Your task to perform on an android device: turn notification dots off Image 0: 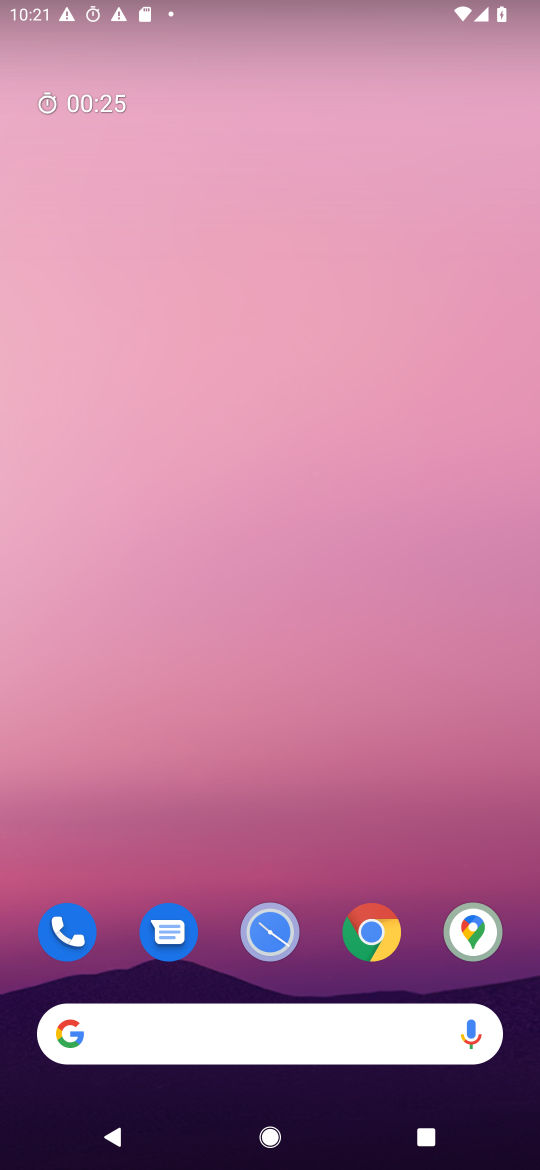
Step 0: drag from (254, 837) to (258, 147)
Your task to perform on an android device: turn notification dots off Image 1: 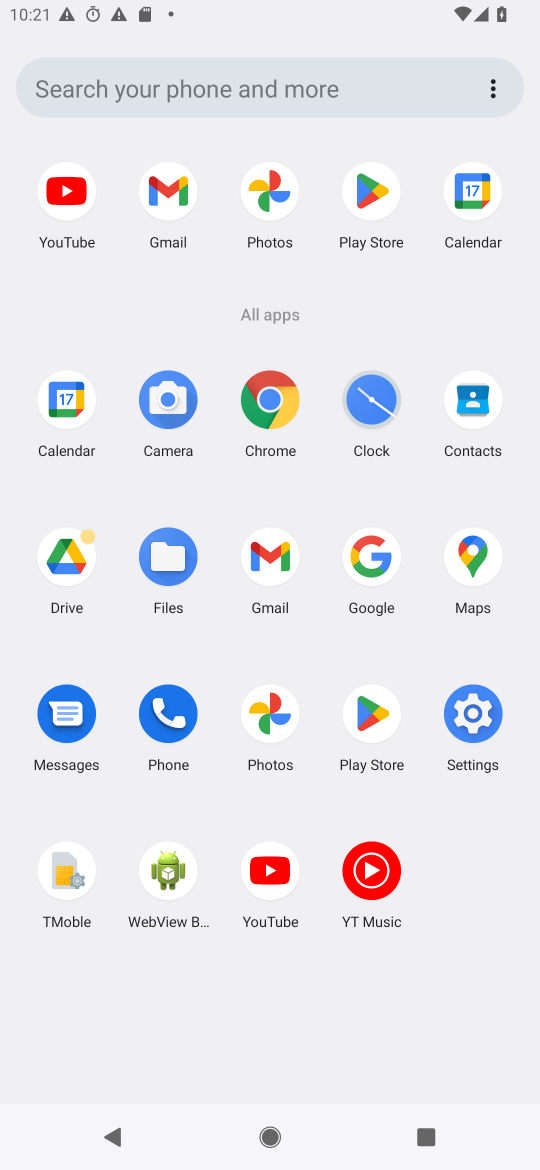
Step 1: click (475, 720)
Your task to perform on an android device: turn notification dots off Image 2: 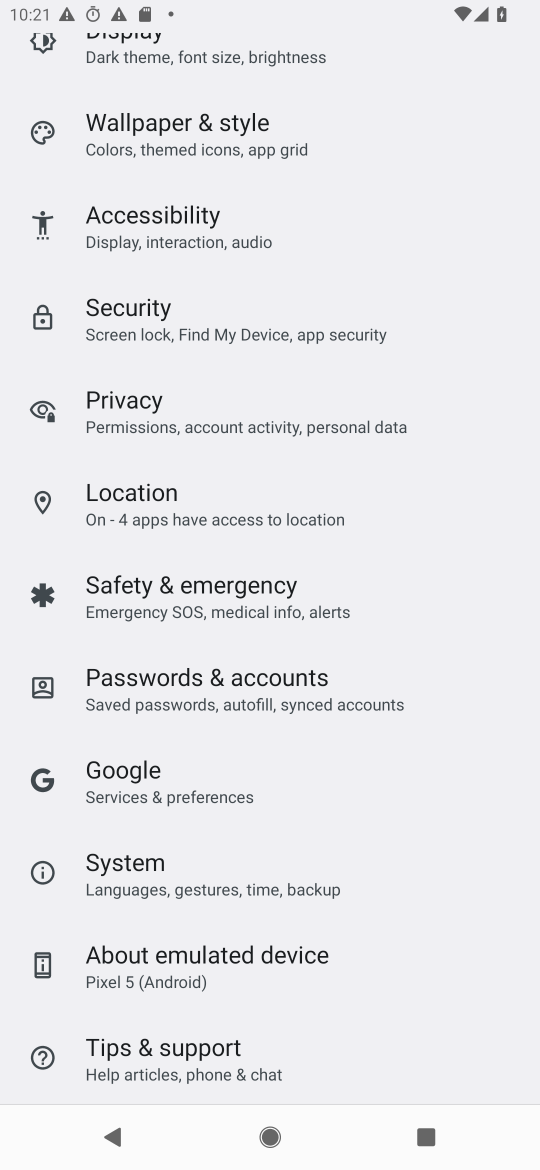
Step 2: drag from (251, 447) to (269, 844)
Your task to perform on an android device: turn notification dots off Image 3: 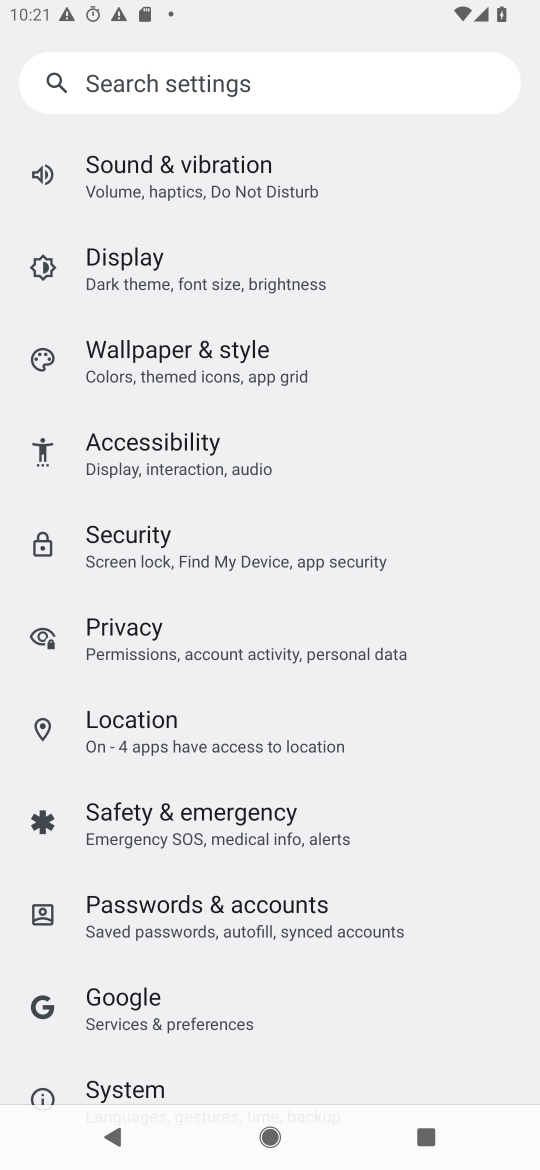
Step 3: drag from (272, 360) to (319, 689)
Your task to perform on an android device: turn notification dots off Image 4: 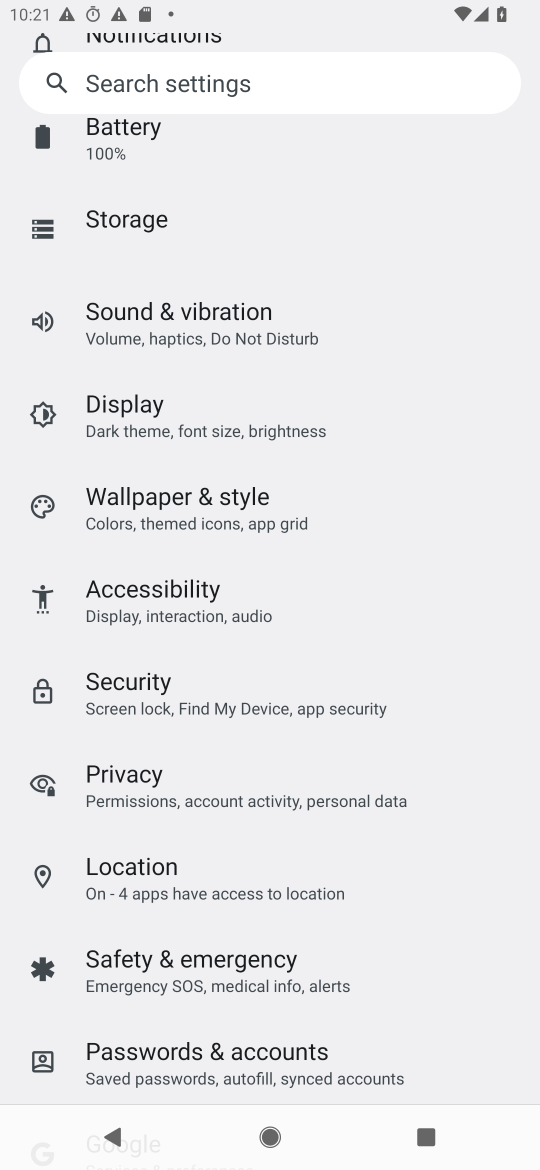
Step 4: drag from (308, 395) to (308, 855)
Your task to perform on an android device: turn notification dots off Image 5: 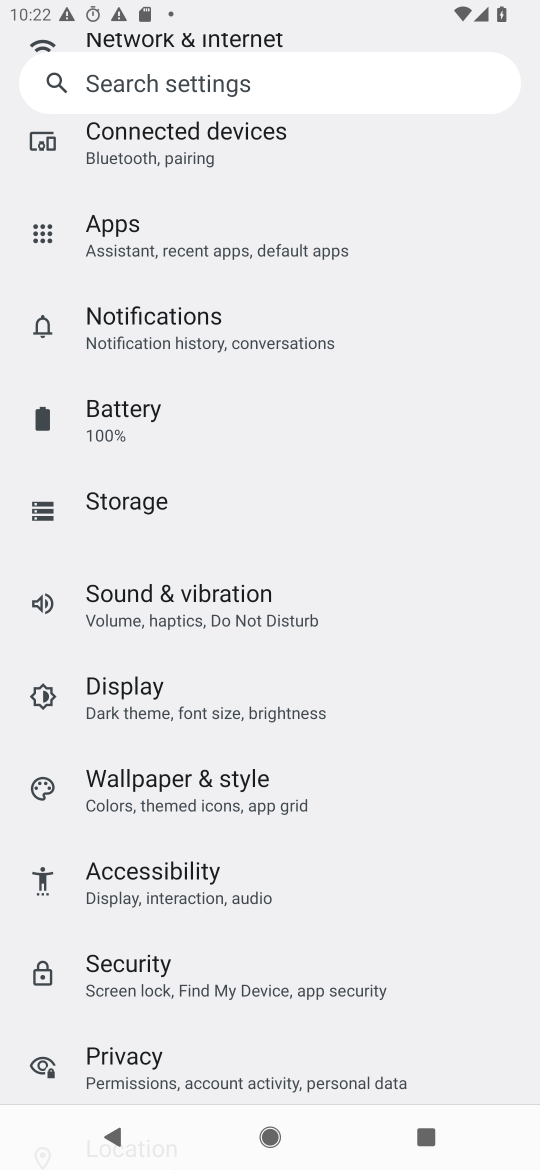
Step 5: click (240, 316)
Your task to perform on an android device: turn notification dots off Image 6: 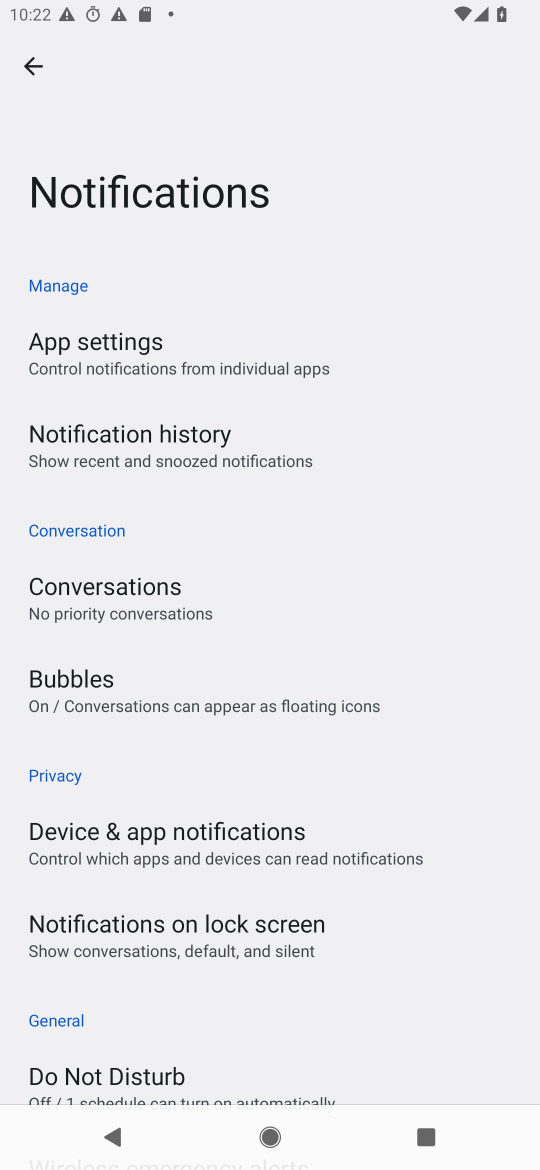
Step 6: drag from (266, 725) to (266, 314)
Your task to perform on an android device: turn notification dots off Image 7: 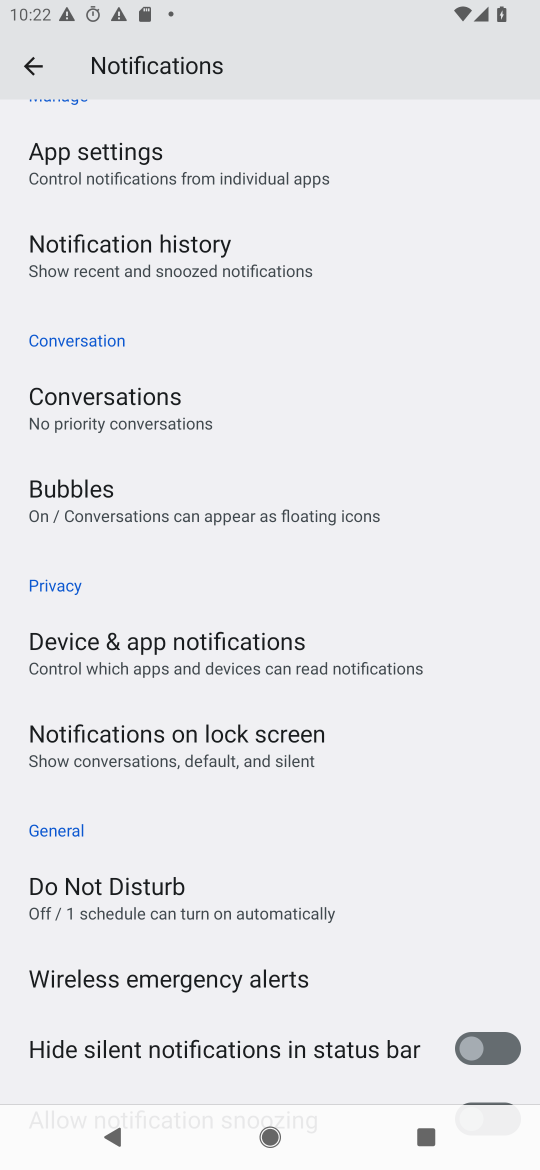
Step 7: drag from (351, 938) to (331, 291)
Your task to perform on an android device: turn notification dots off Image 8: 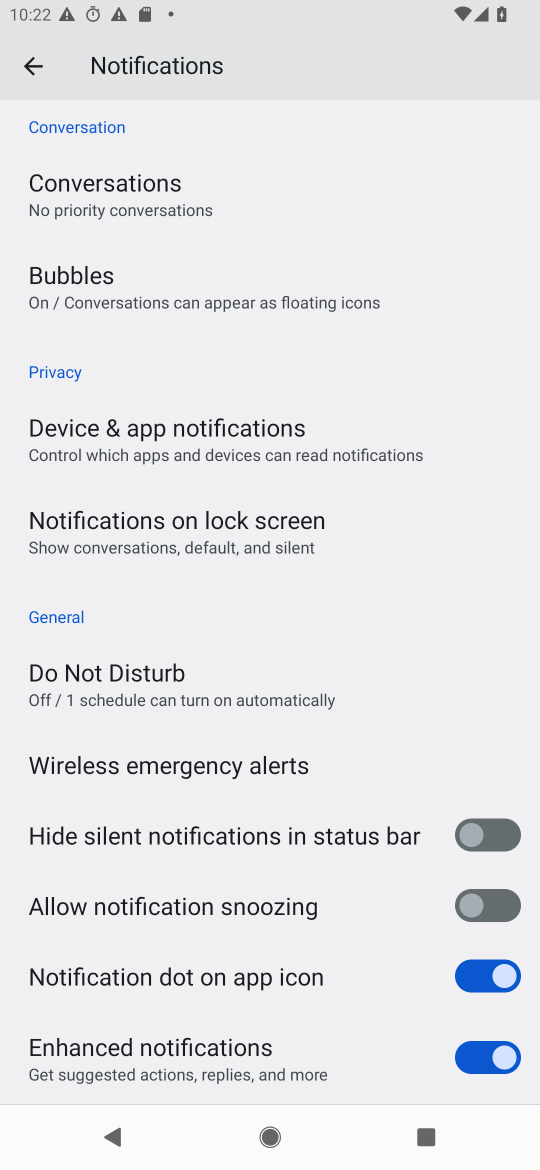
Step 8: click (481, 981)
Your task to perform on an android device: turn notification dots off Image 9: 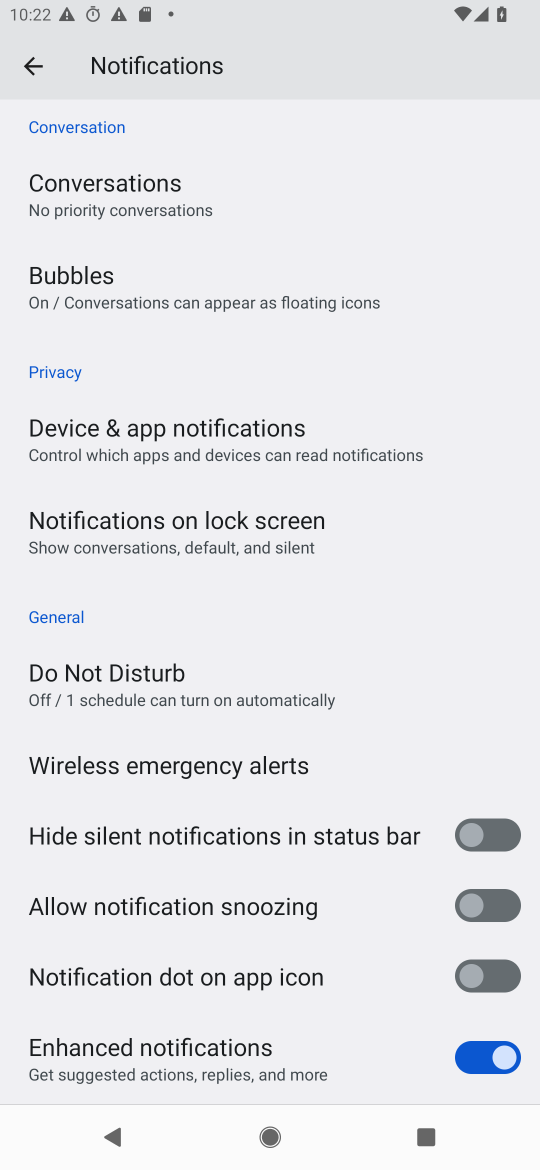
Step 9: task complete